Your task to perform on an android device: check out phone information Image 0: 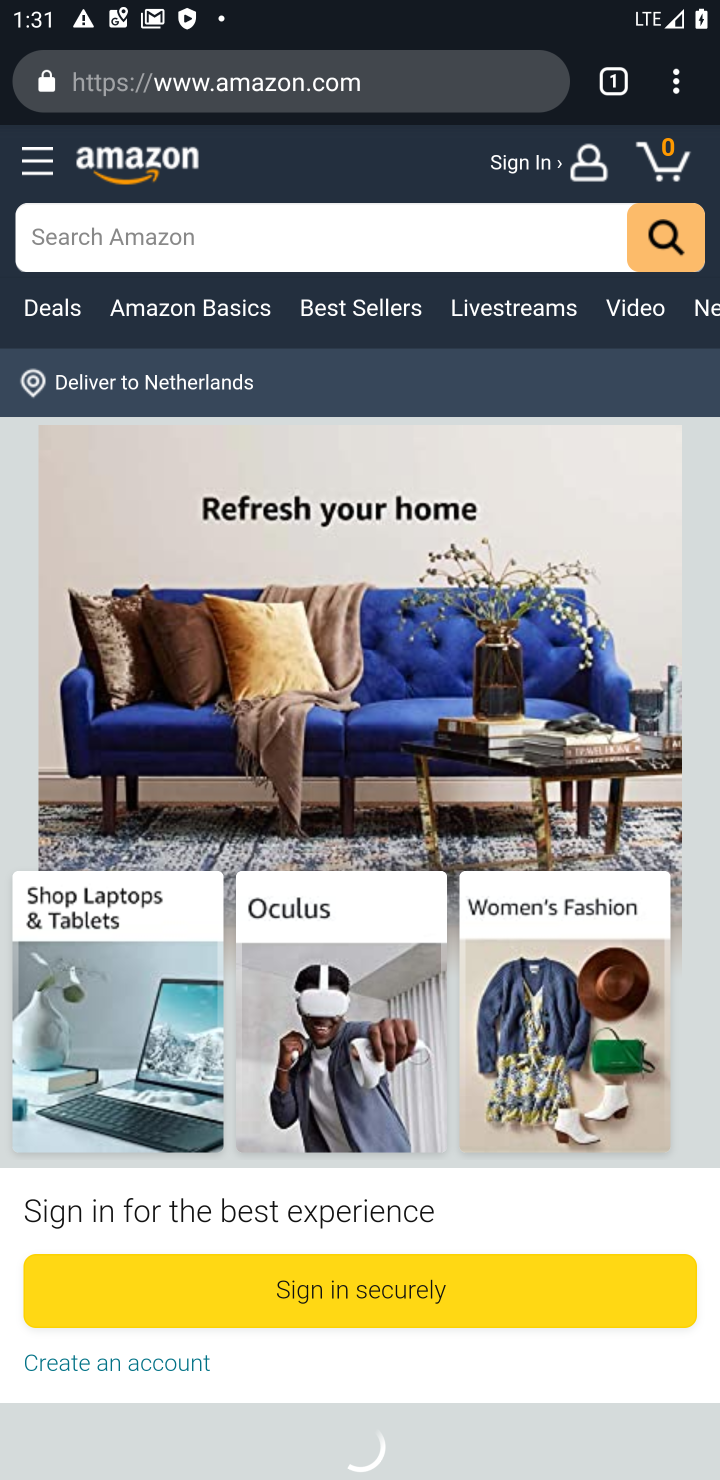
Step 0: press home button
Your task to perform on an android device: check out phone information Image 1: 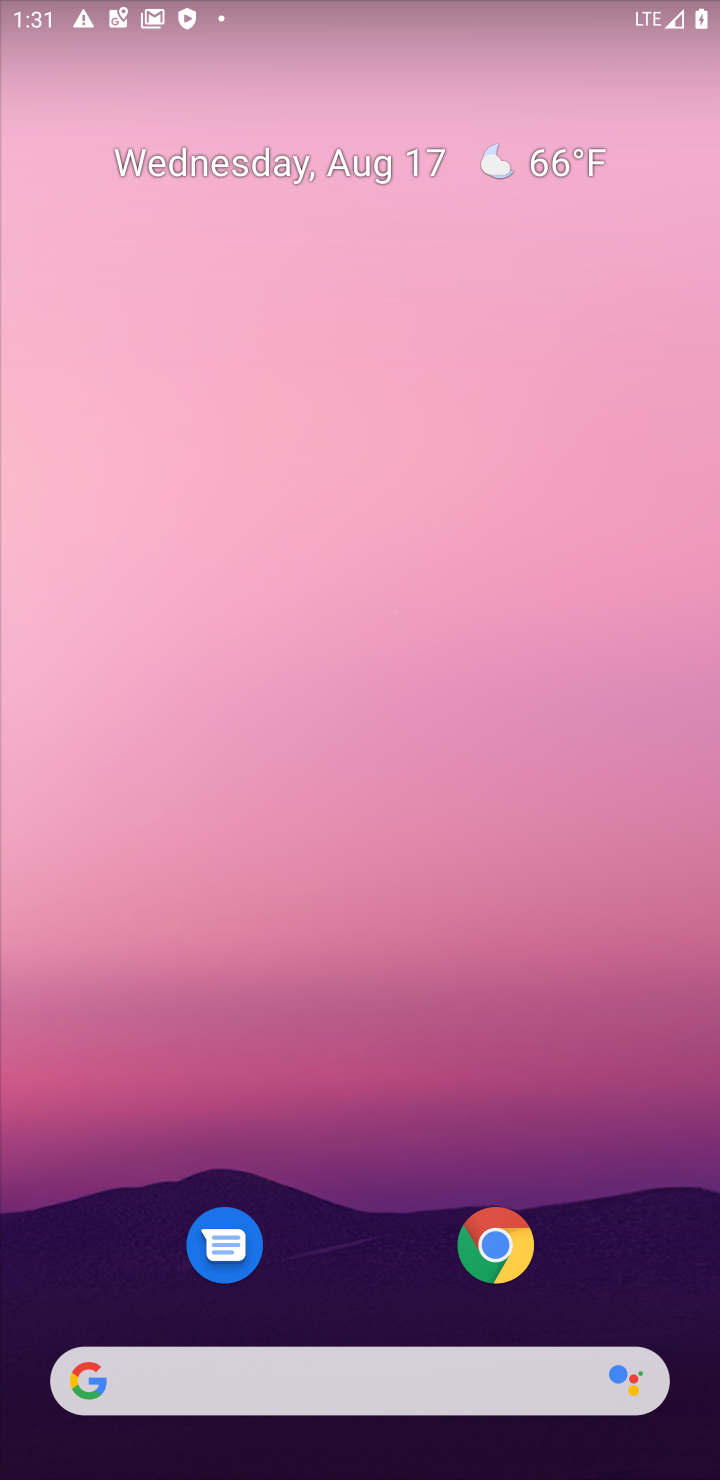
Step 1: drag from (347, 1332) to (460, 288)
Your task to perform on an android device: check out phone information Image 2: 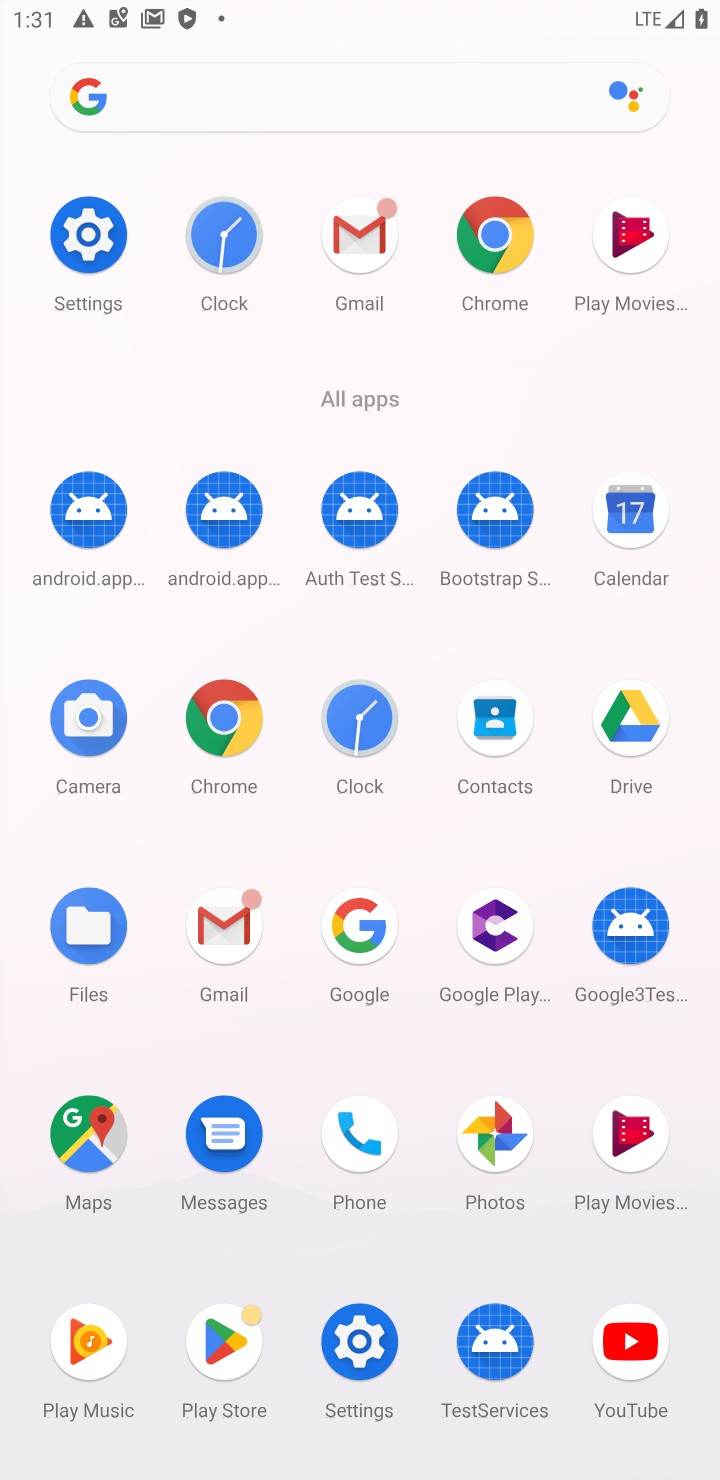
Step 2: click (352, 1335)
Your task to perform on an android device: check out phone information Image 3: 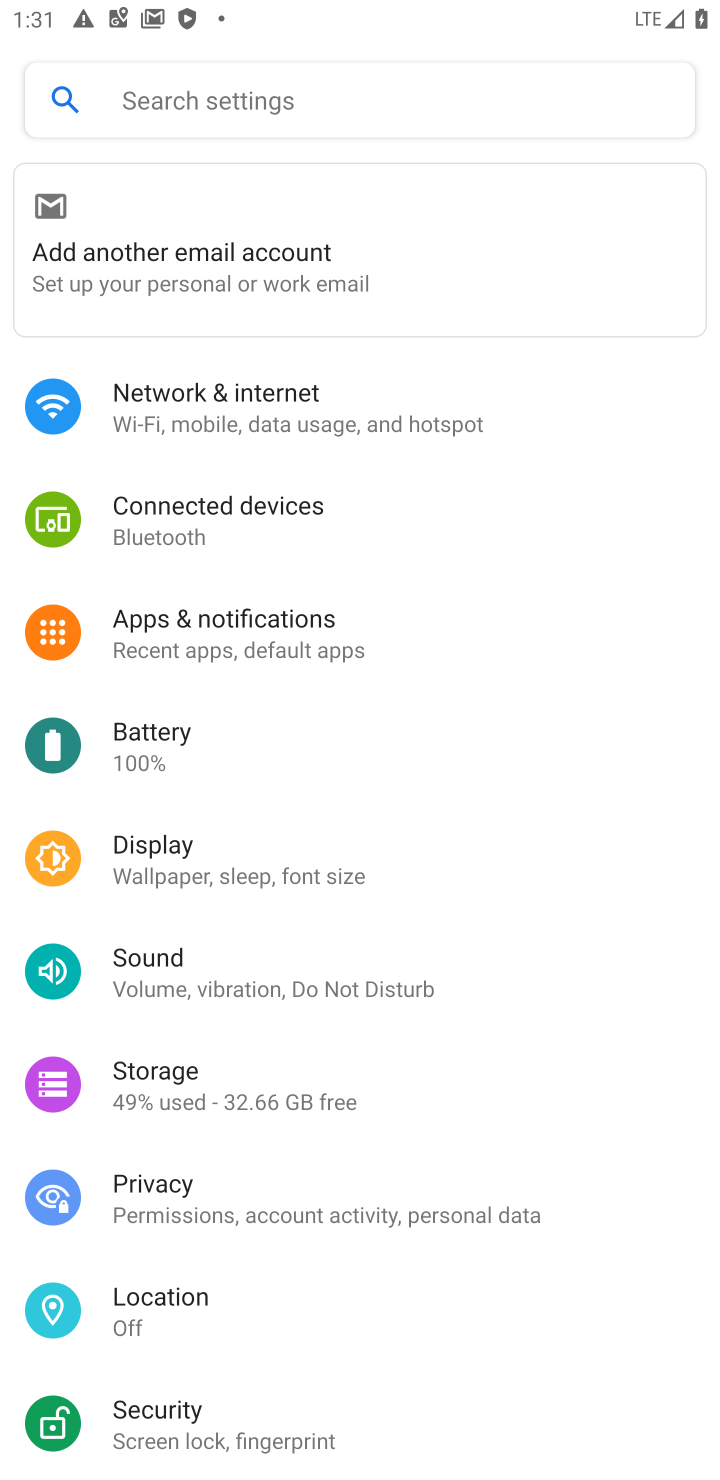
Step 3: drag from (316, 1374) to (334, 745)
Your task to perform on an android device: check out phone information Image 4: 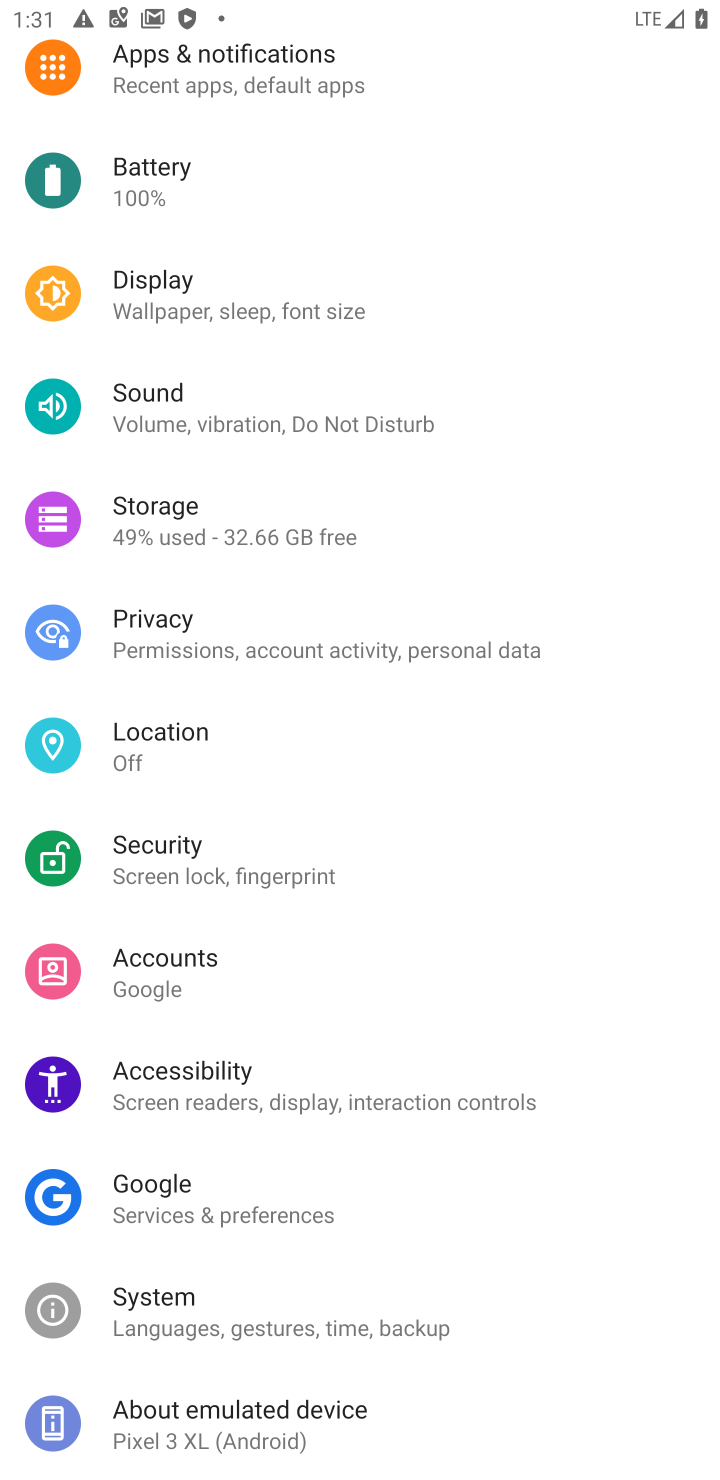
Step 4: drag from (270, 1403) to (260, 791)
Your task to perform on an android device: check out phone information Image 5: 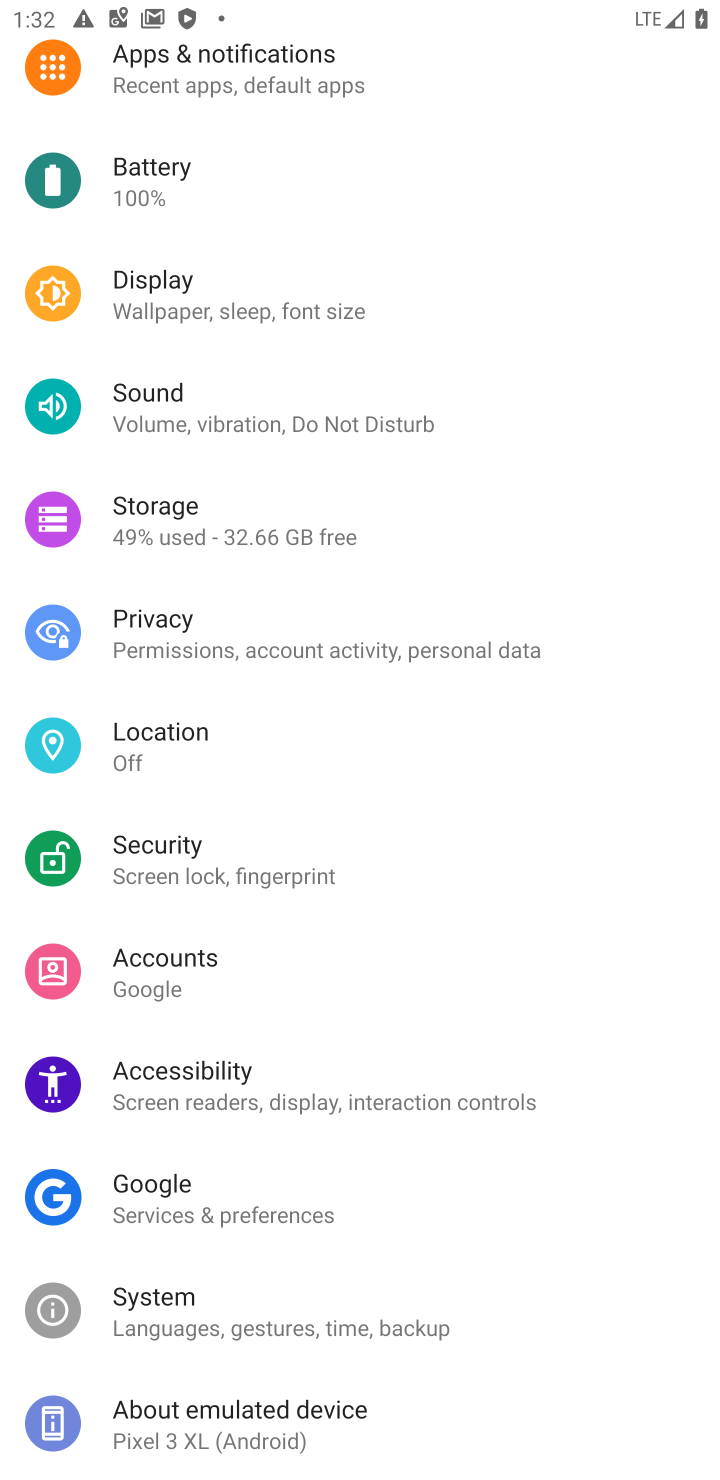
Step 5: click (204, 1413)
Your task to perform on an android device: check out phone information Image 6: 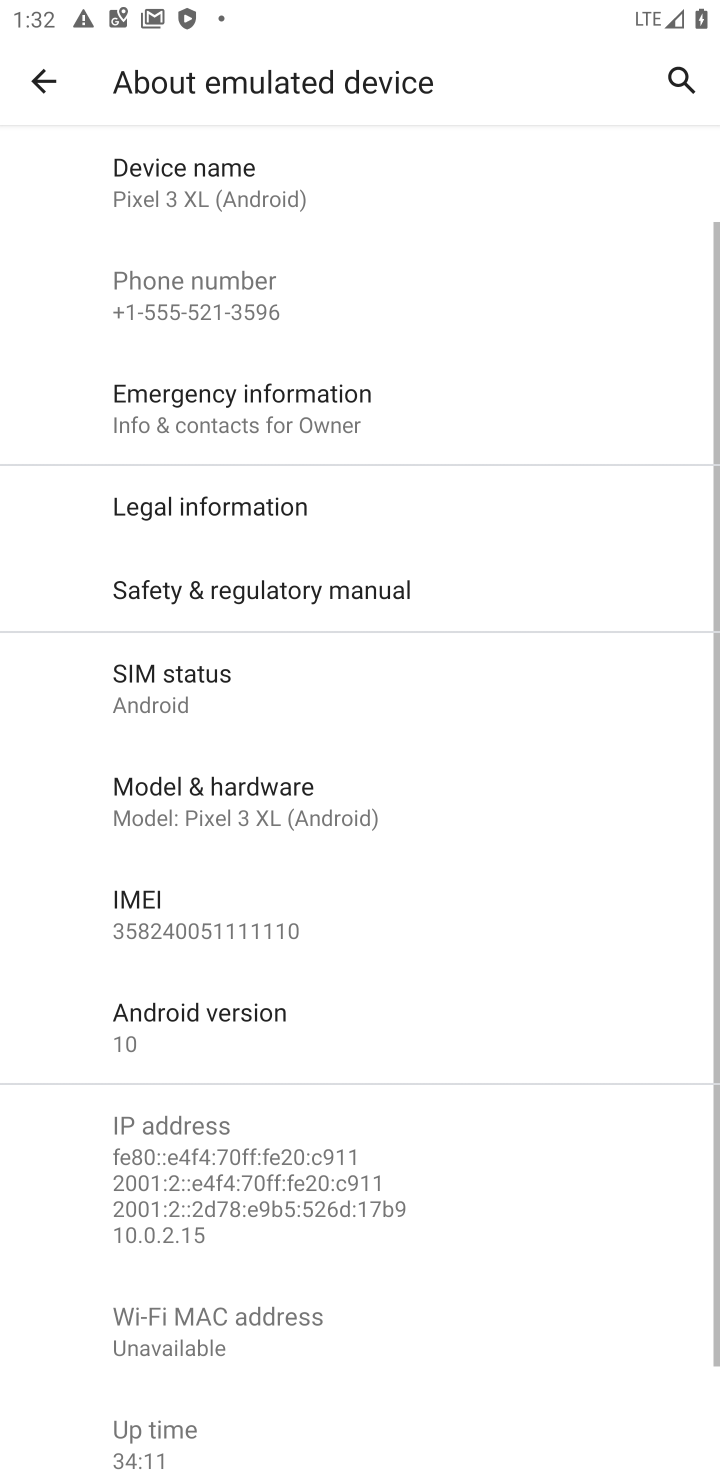
Step 6: task complete